Your task to perform on an android device: Go to notification settings Image 0: 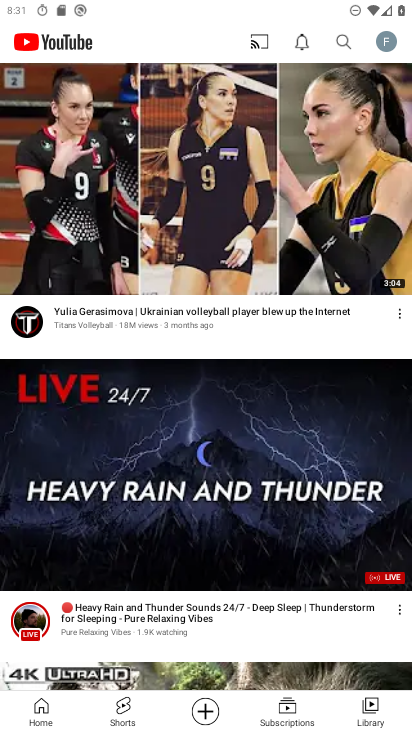
Step 0: press home button
Your task to perform on an android device: Go to notification settings Image 1: 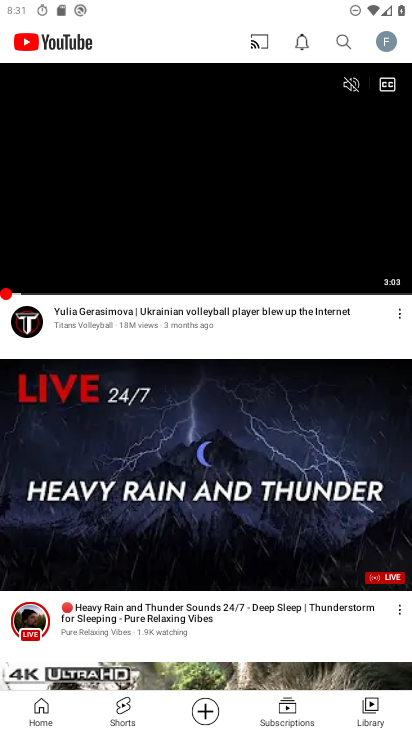
Step 1: drag from (371, 641) to (231, 60)
Your task to perform on an android device: Go to notification settings Image 2: 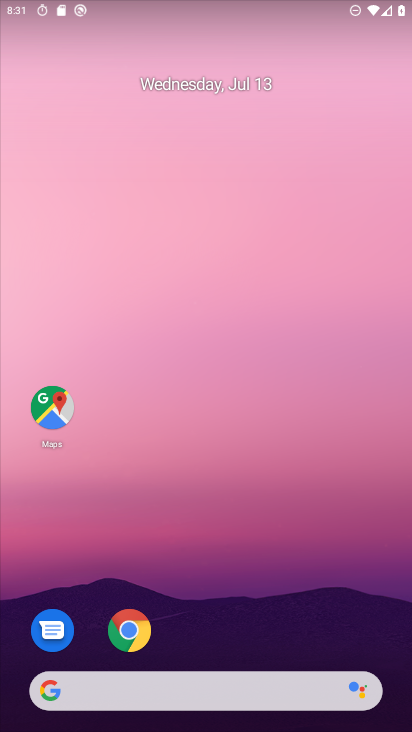
Step 2: drag from (376, 660) to (251, 31)
Your task to perform on an android device: Go to notification settings Image 3: 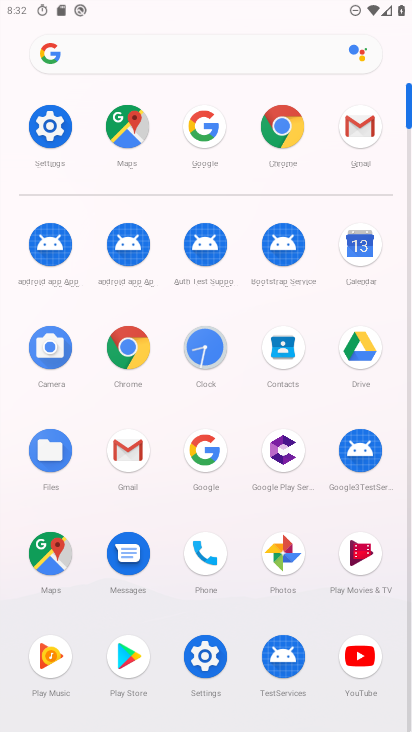
Step 3: click (194, 680)
Your task to perform on an android device: Go to notification settings Image 4: 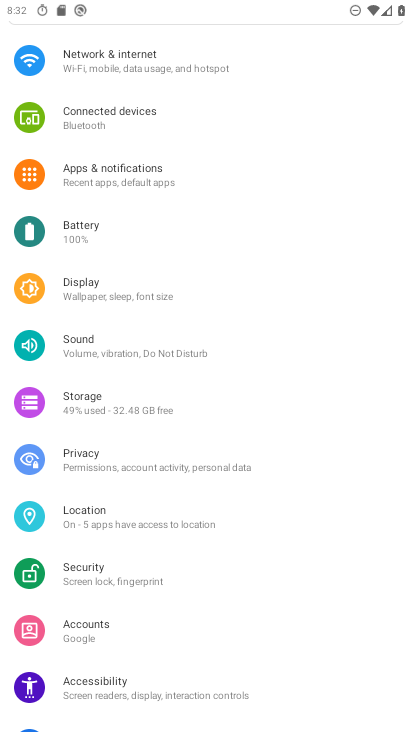
Step 4: click (92, 170)
Your task to perform on an android device: Go to notification settings Image 5: 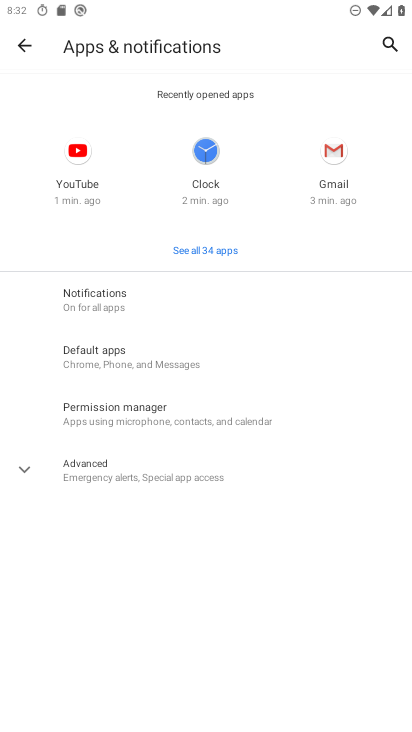
Step 5: click (142, 300)
Your task to perform on an android device: Go to notification settings Image 6: 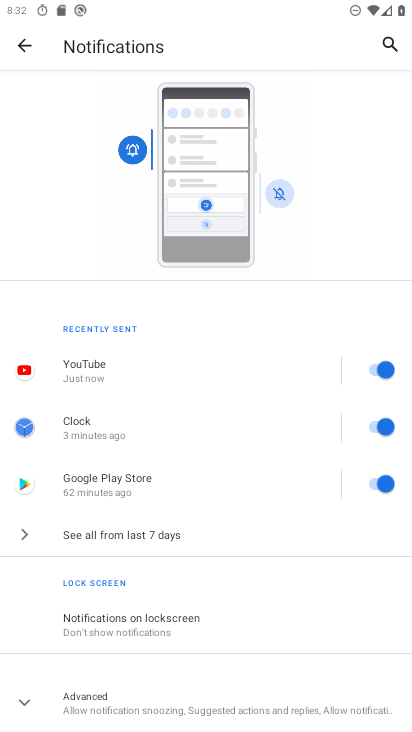
Step 6: task complete